Your task to perform on an android device: open app "The Home Depot" Image 0: 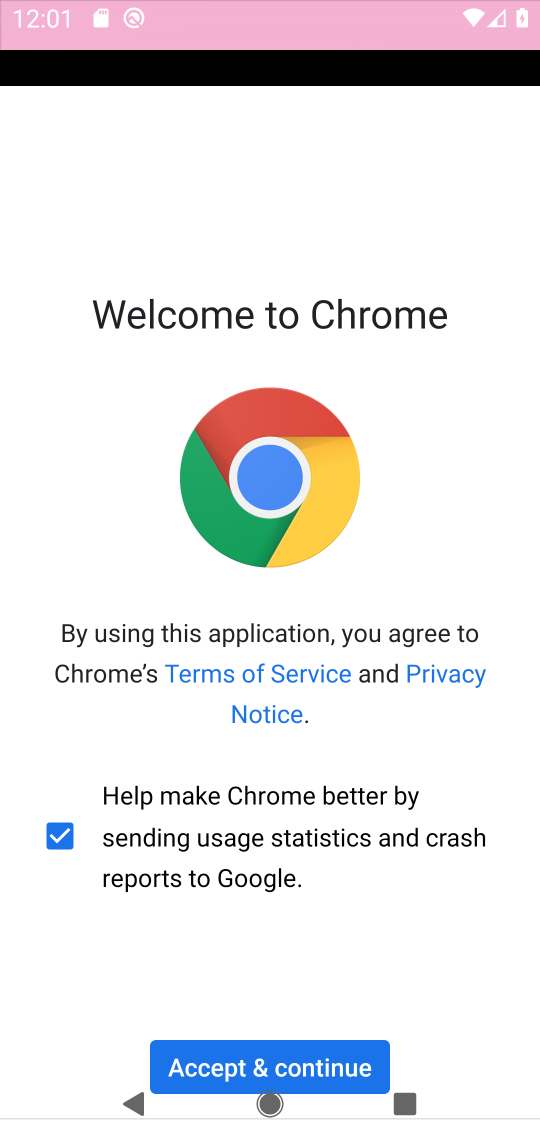
Step 0: drag from (301, 639) to (357, 109)
Your task to perform on an android device: open app "The Home Depot" Image 1: 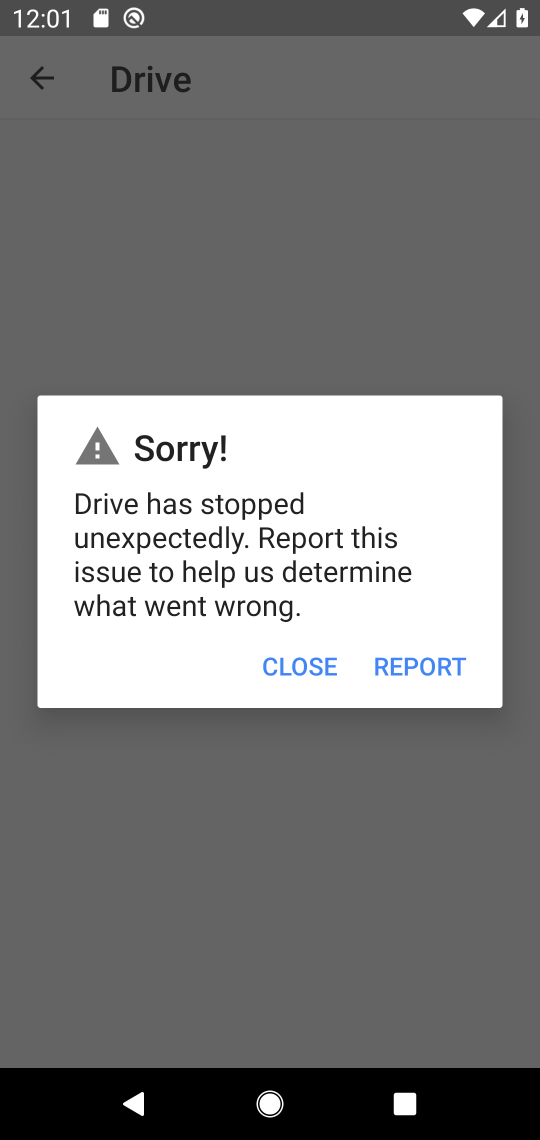
Step 1: press home button
Your task to perform on an android device: open app "The Home Depot" Image 2: 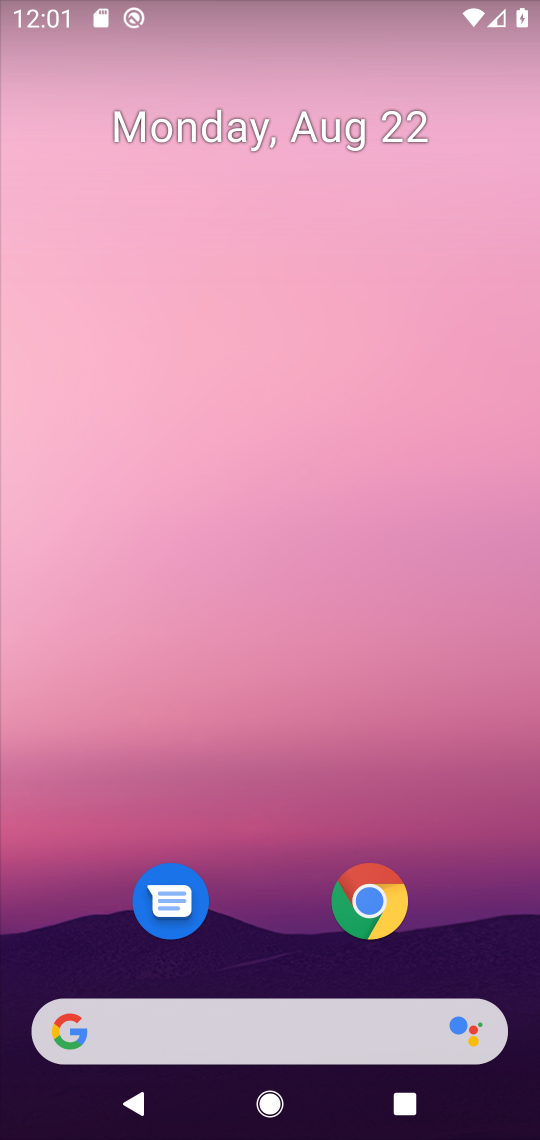
Step 2: drag from (264, 946) to (310, 331)
Your task to perform on an android device: open app "The Home Depot" Image 3: 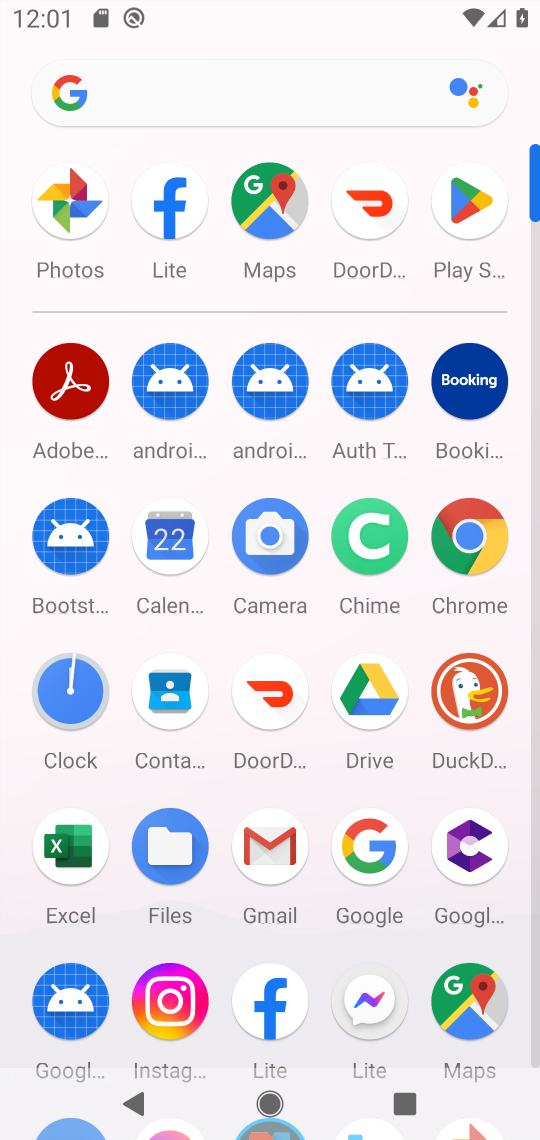
Step 3: click (447, 209)
Your task to perform on an android device: open app "The Home Depot" Image 4: 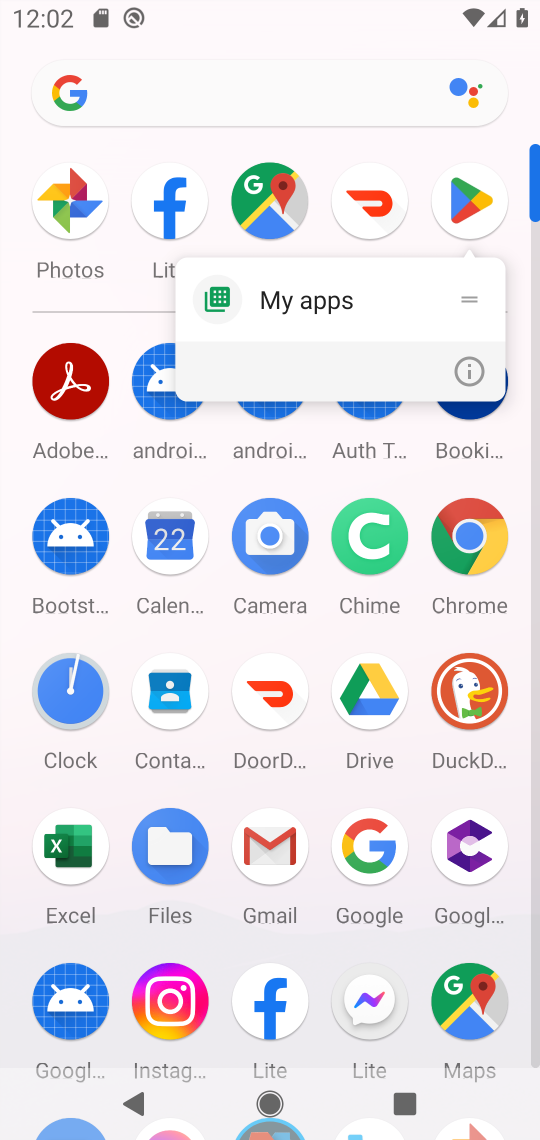
Step 4: click (467, 235)
Your task to perform on an android device: open app "The Home Depot" Image 5: 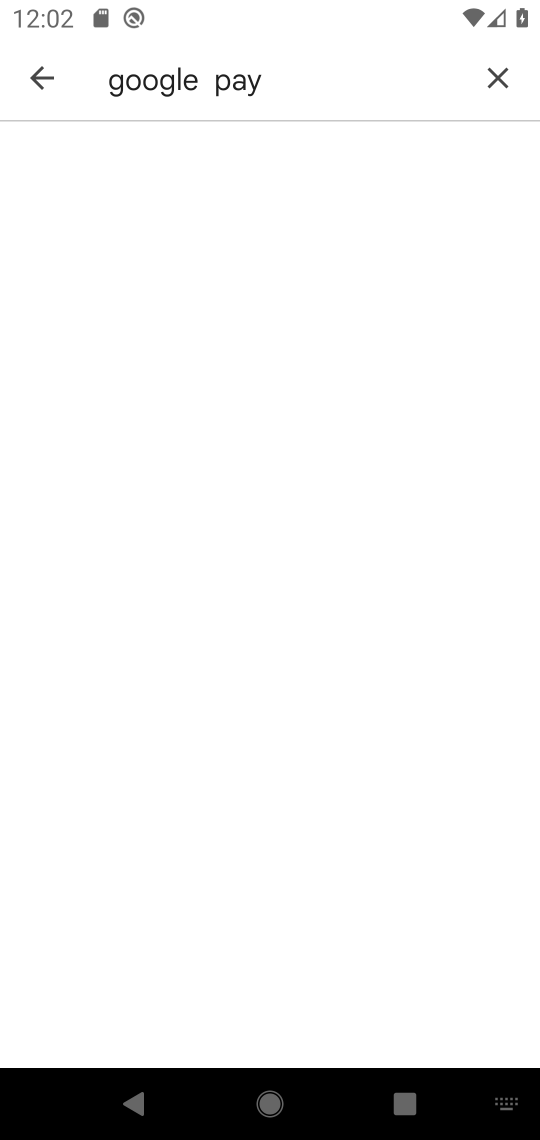
Step 5: click (483, 73)
Your task to perform on an android device: open app "The Home Depot" Image 6: 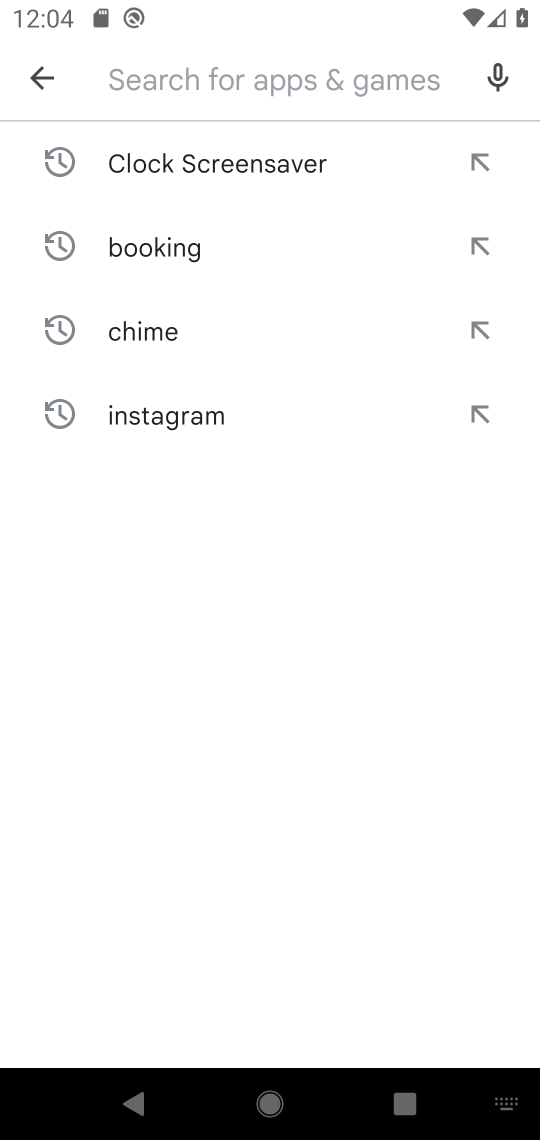
Step 6: type "home depot"
Your task to perform on an android device: open app "The Home Depot" Image 7: 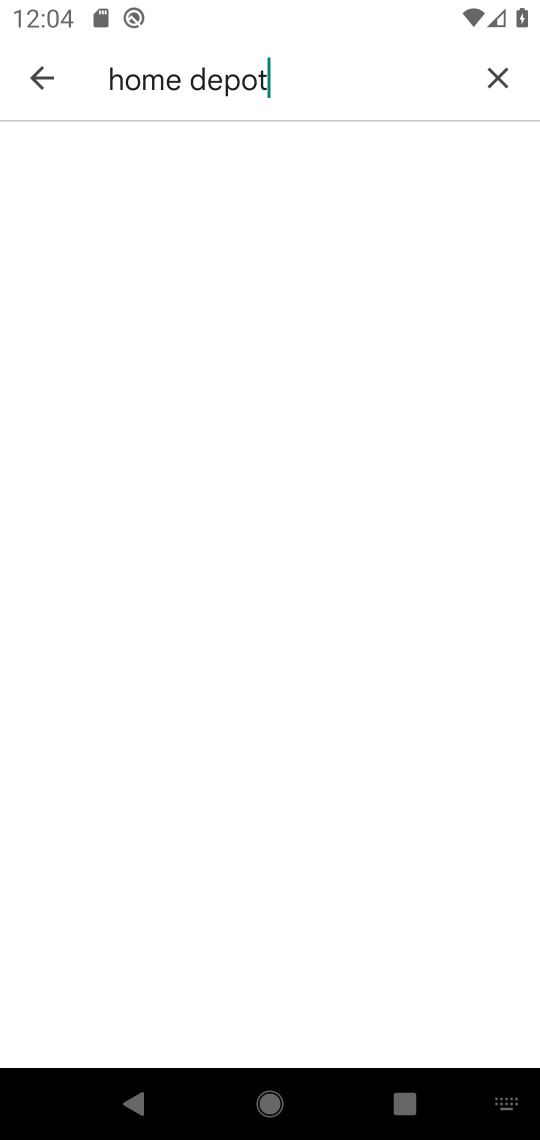
Step 7: task complete